Your task to perform on an android device: toggle notification dots Image 0: 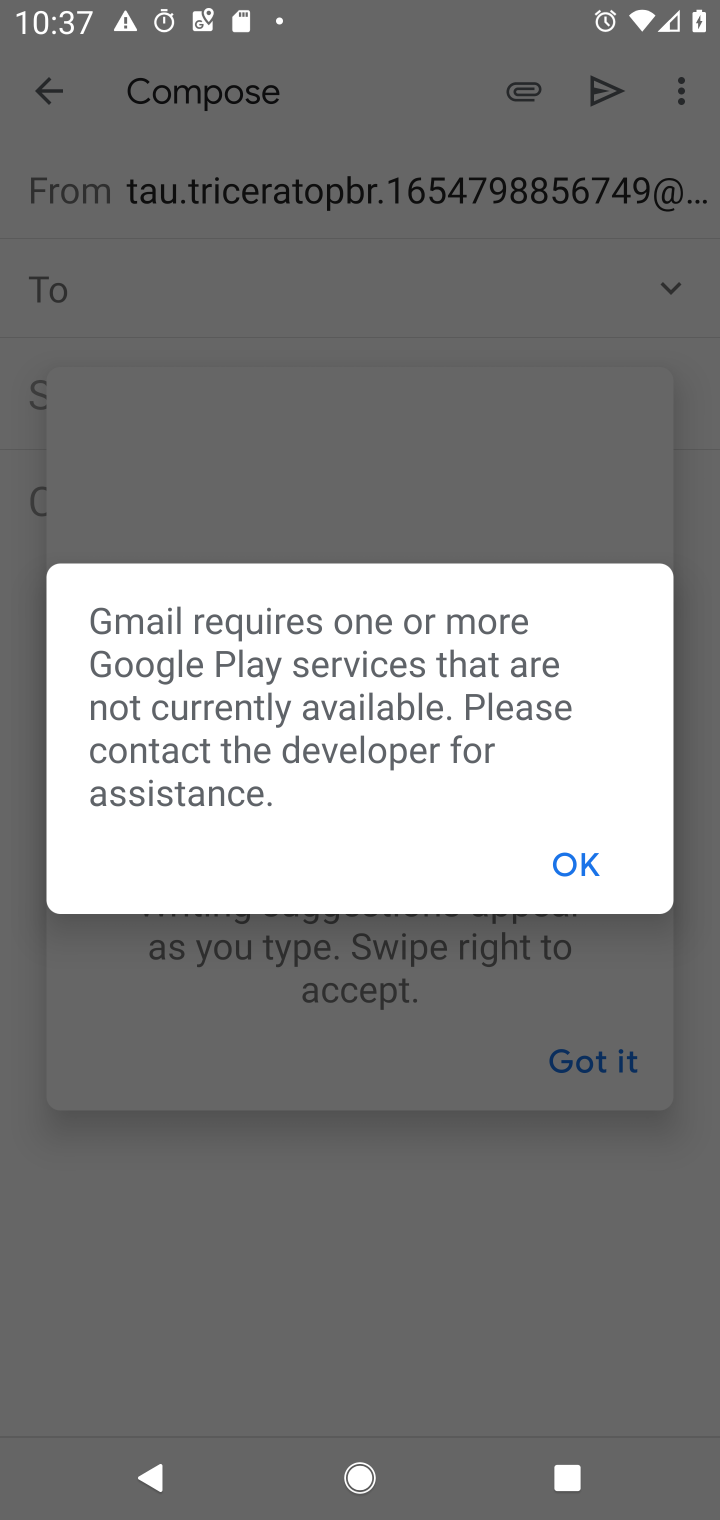
Step 0: press home button
Your task to perform on an android device: toggle notification dots Image 1: 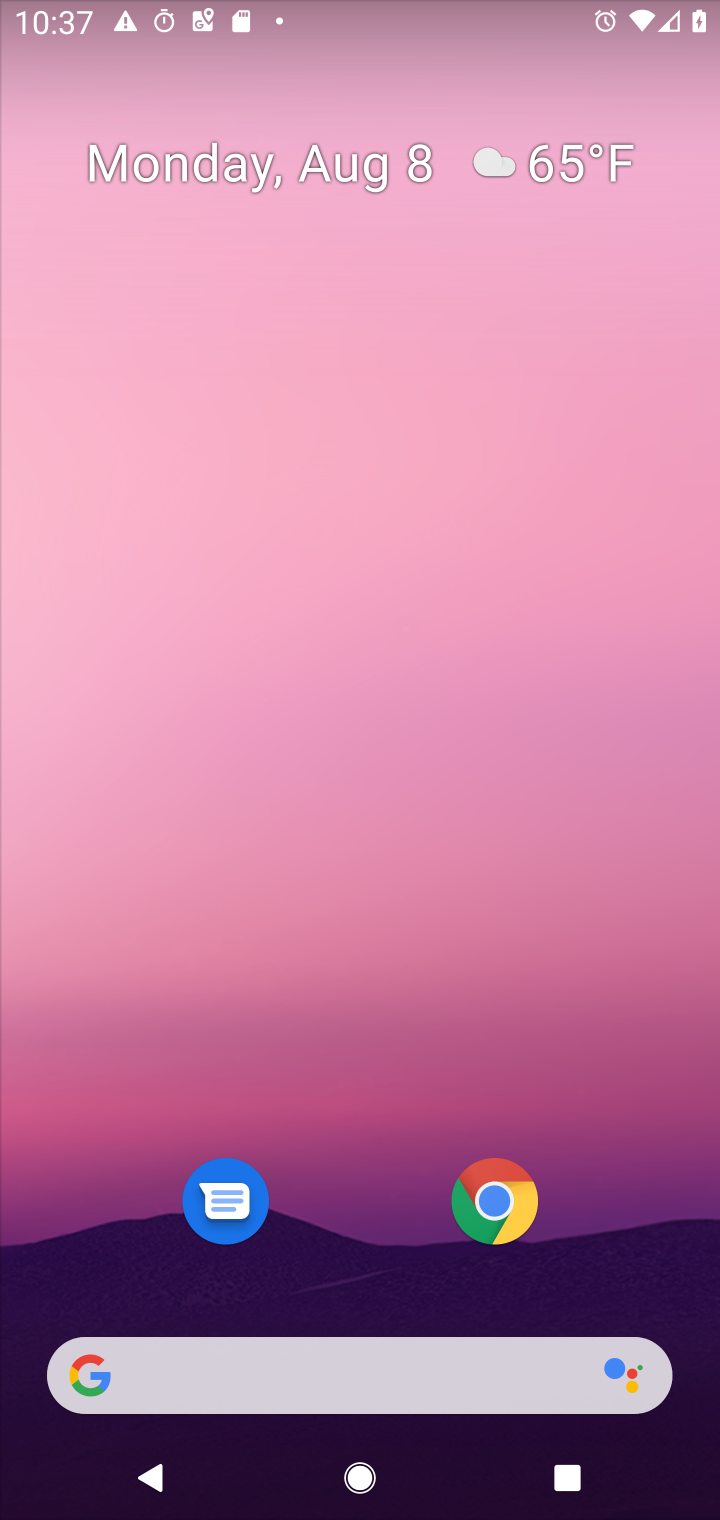
Step 1: drag from (380, 1195) to (456, 280)
Your task to perform on an android device: toggle notification dots Image 2: 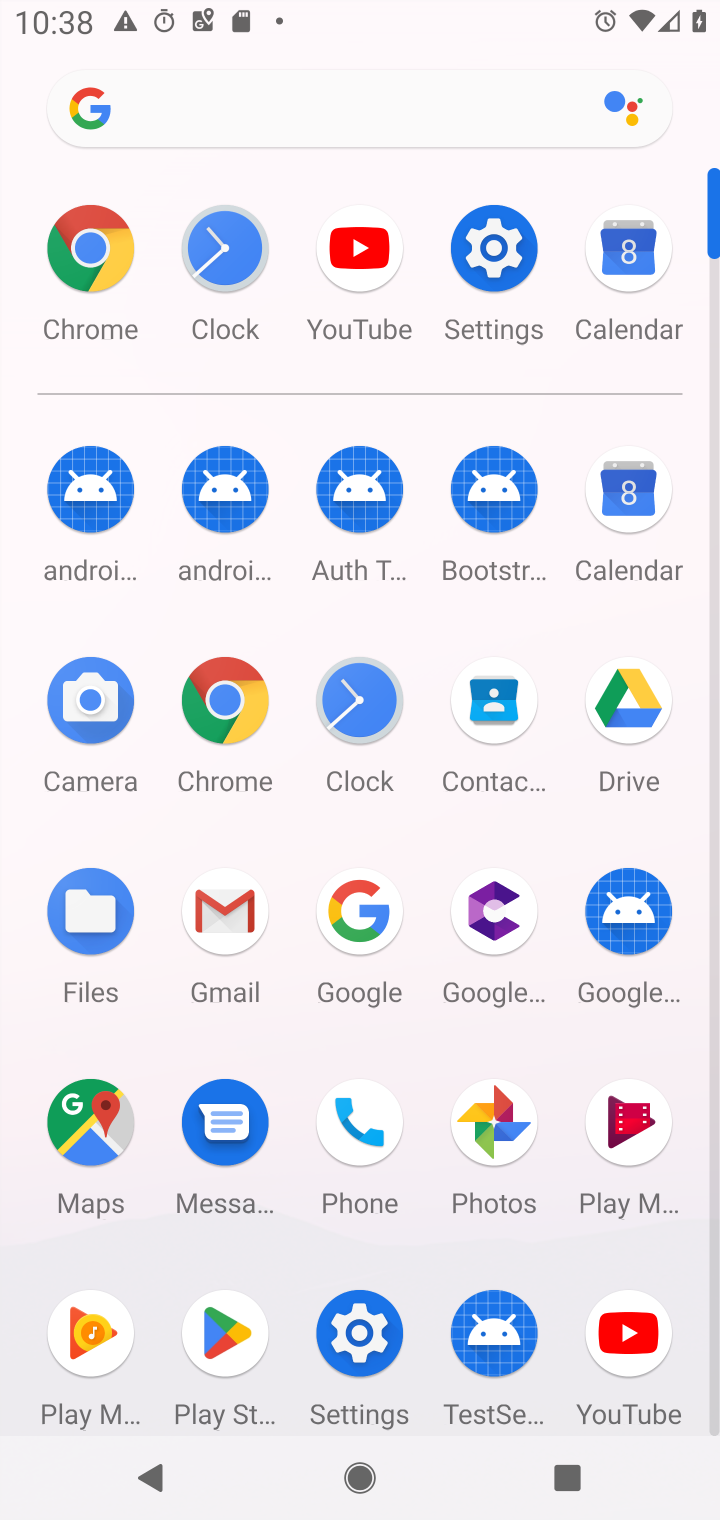
Step 2: click (499, 259)
Your task to perform on an android device: toggle notification dots Image 3: 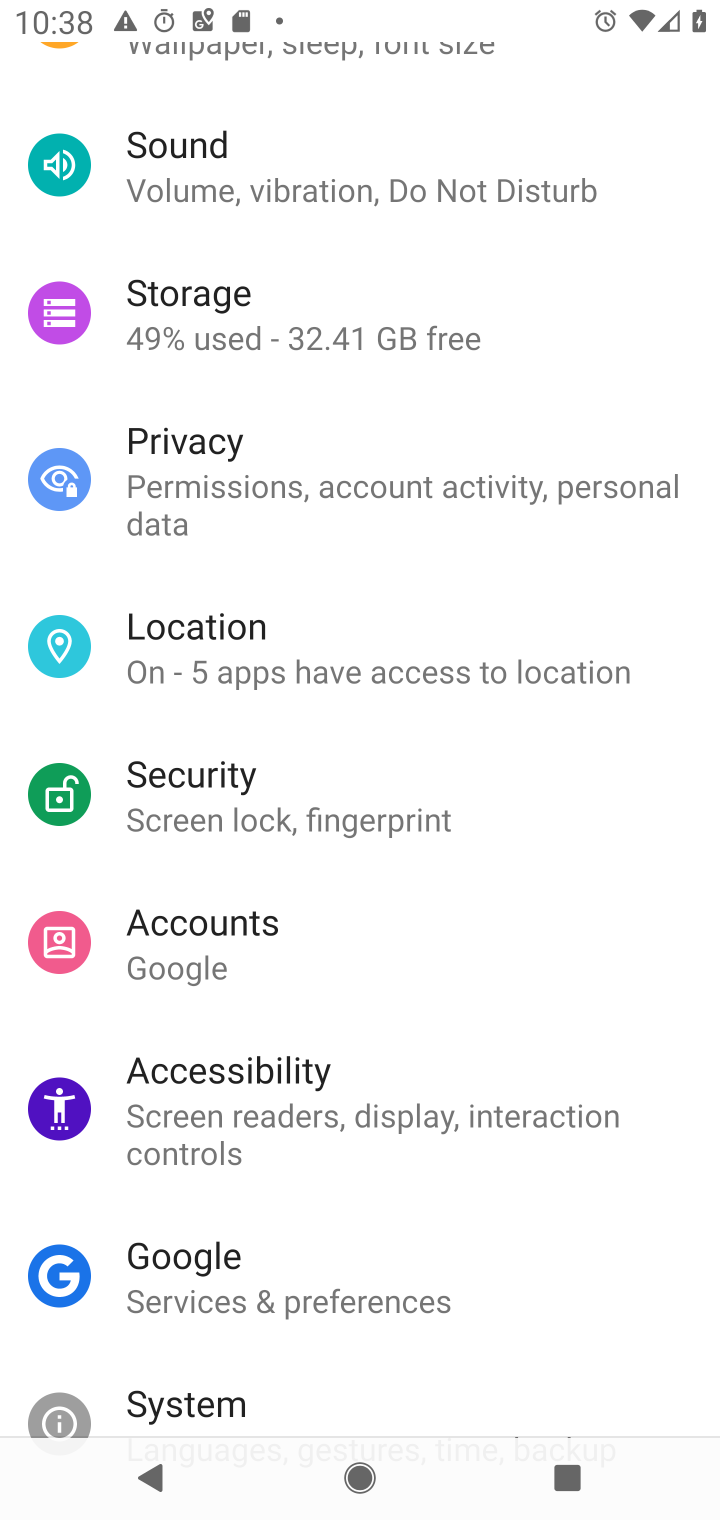
Step 3: drag from (664, 548) to (667, 740)
Your task to perform on an android device: toggle notification dots Image 4: 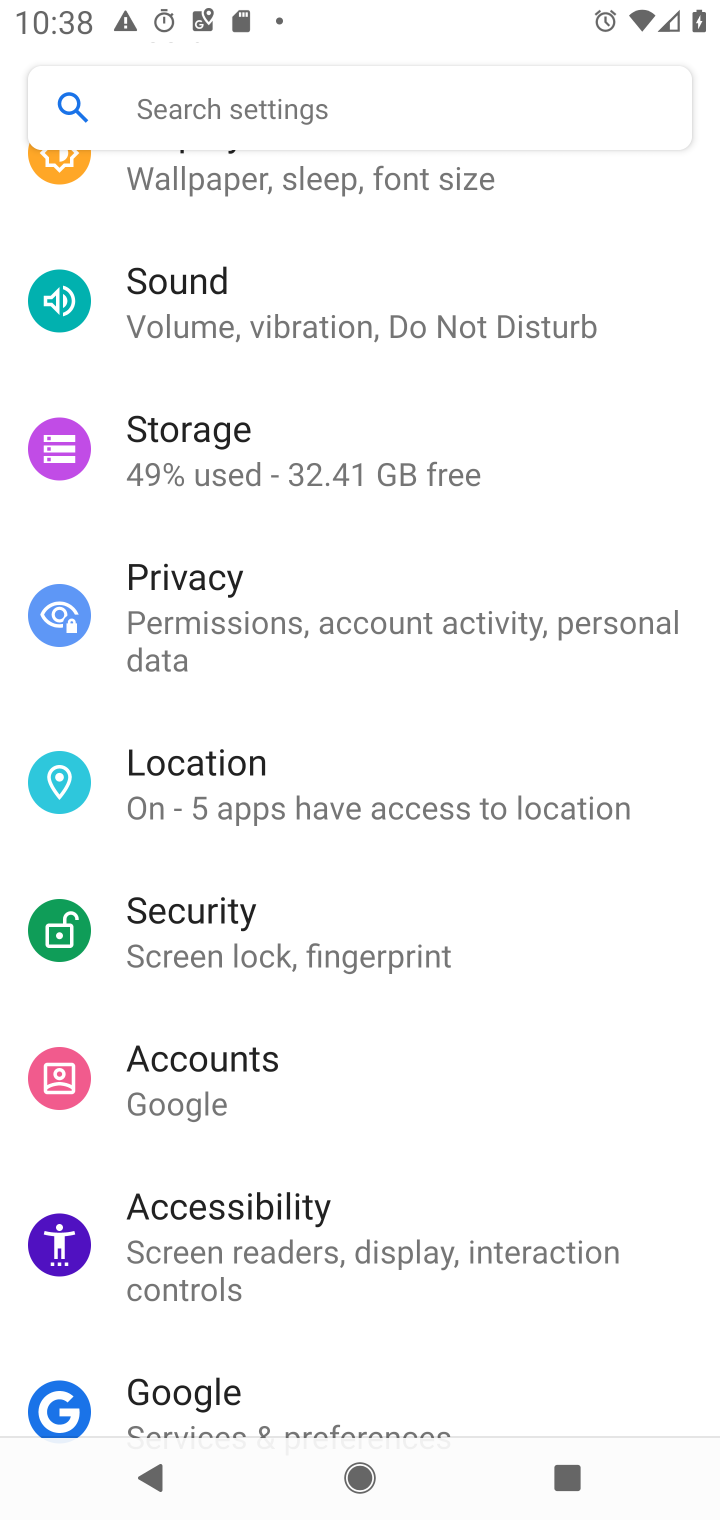
Step 4: drag from (629, 319) to (639, 563)
Your task to perform on an android device: toggle notification dots Image 5: 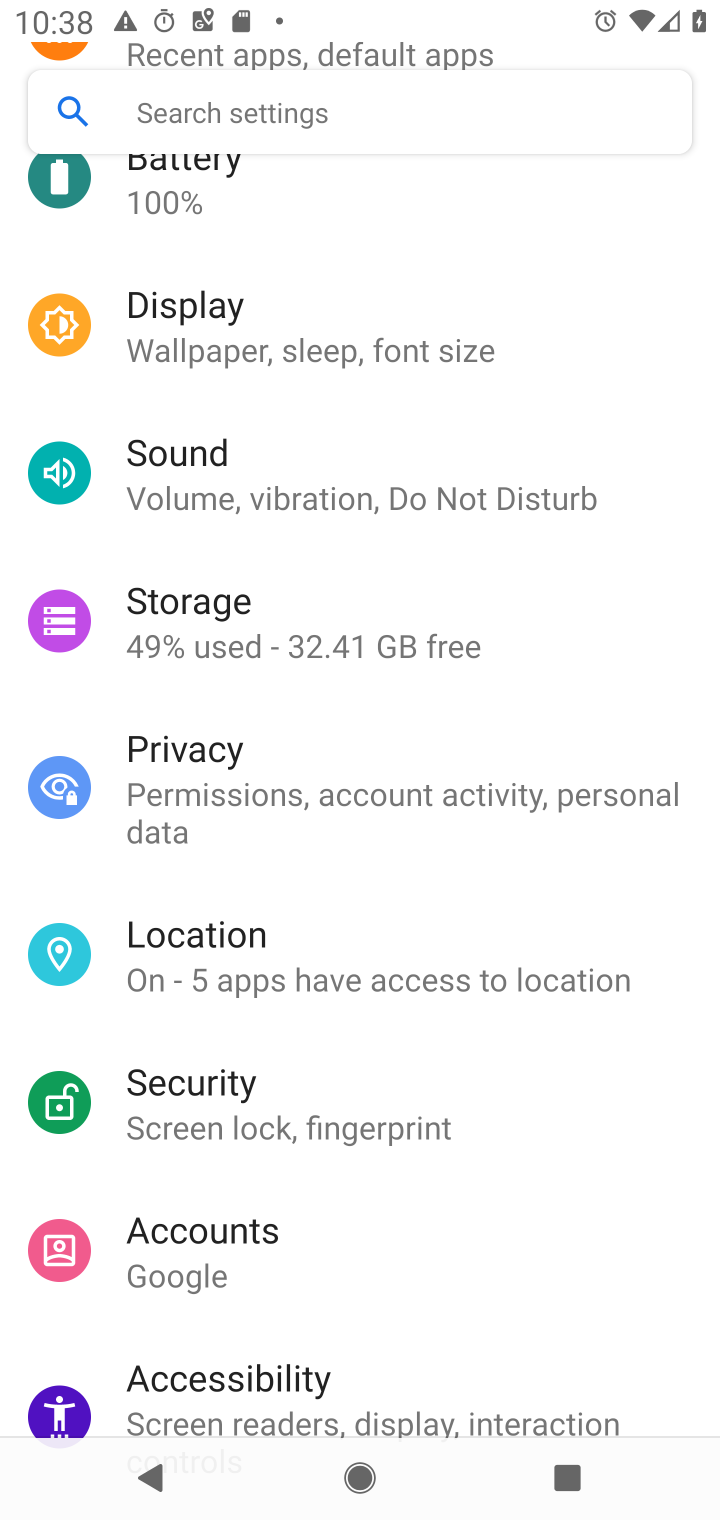
Step 5: drag from (634, 268) to (650, 549)
Your task to perform on an android device: toggle notification dots Image 6: 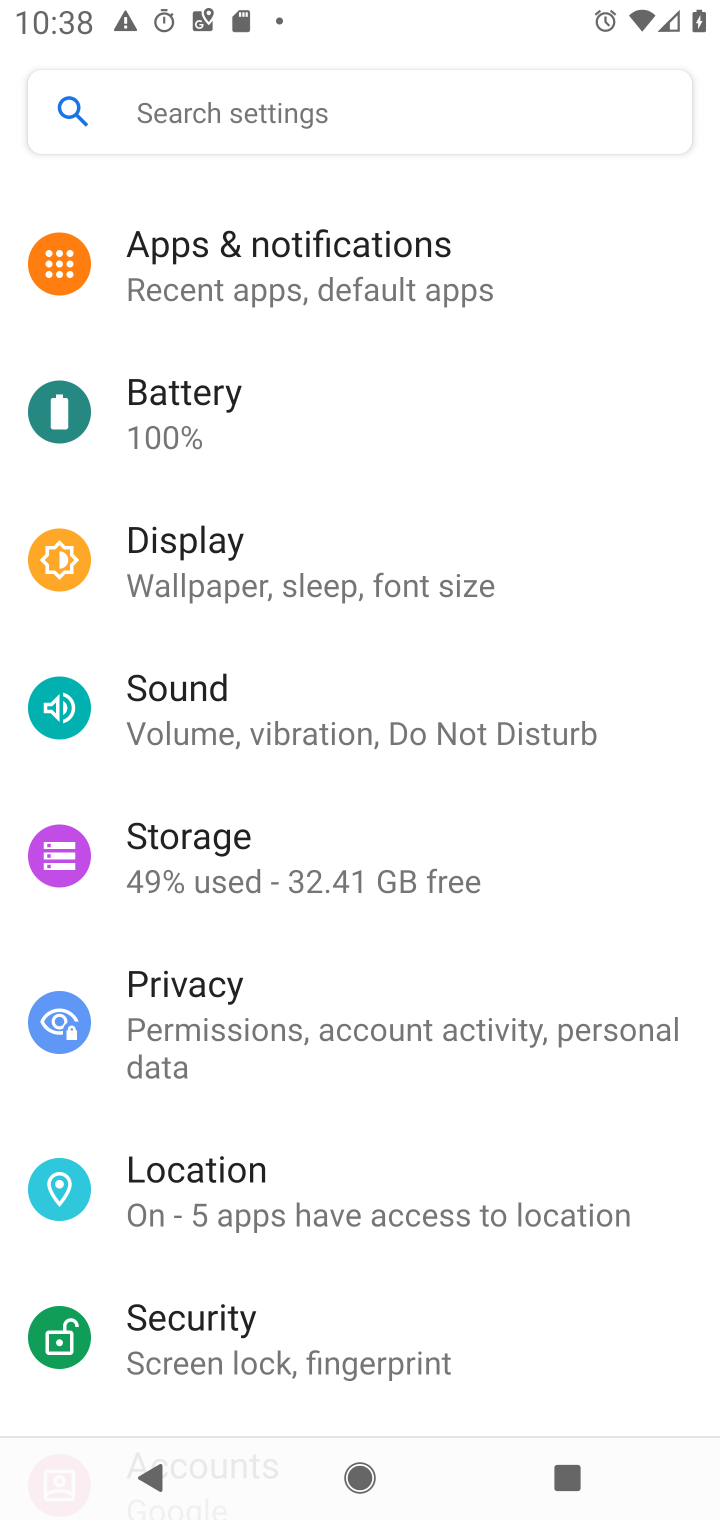
Step 6: drag from (634, 290) to (678, 599)
Your task to perform on an android device: toggle notification dots Image 7: 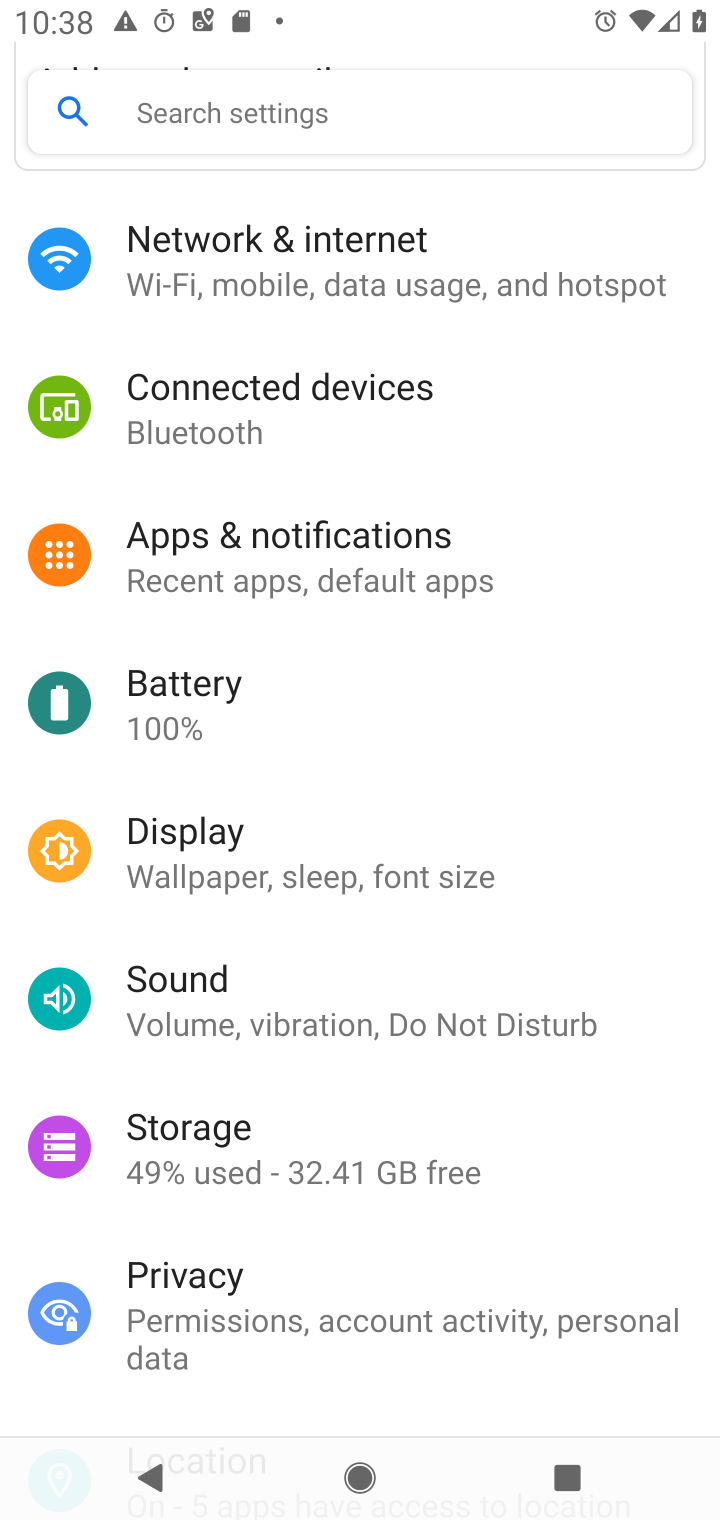
Step 7: drag from (674, 353) to (678, 619)
Your task to perform on an android device: toggle notification dots Image 8: 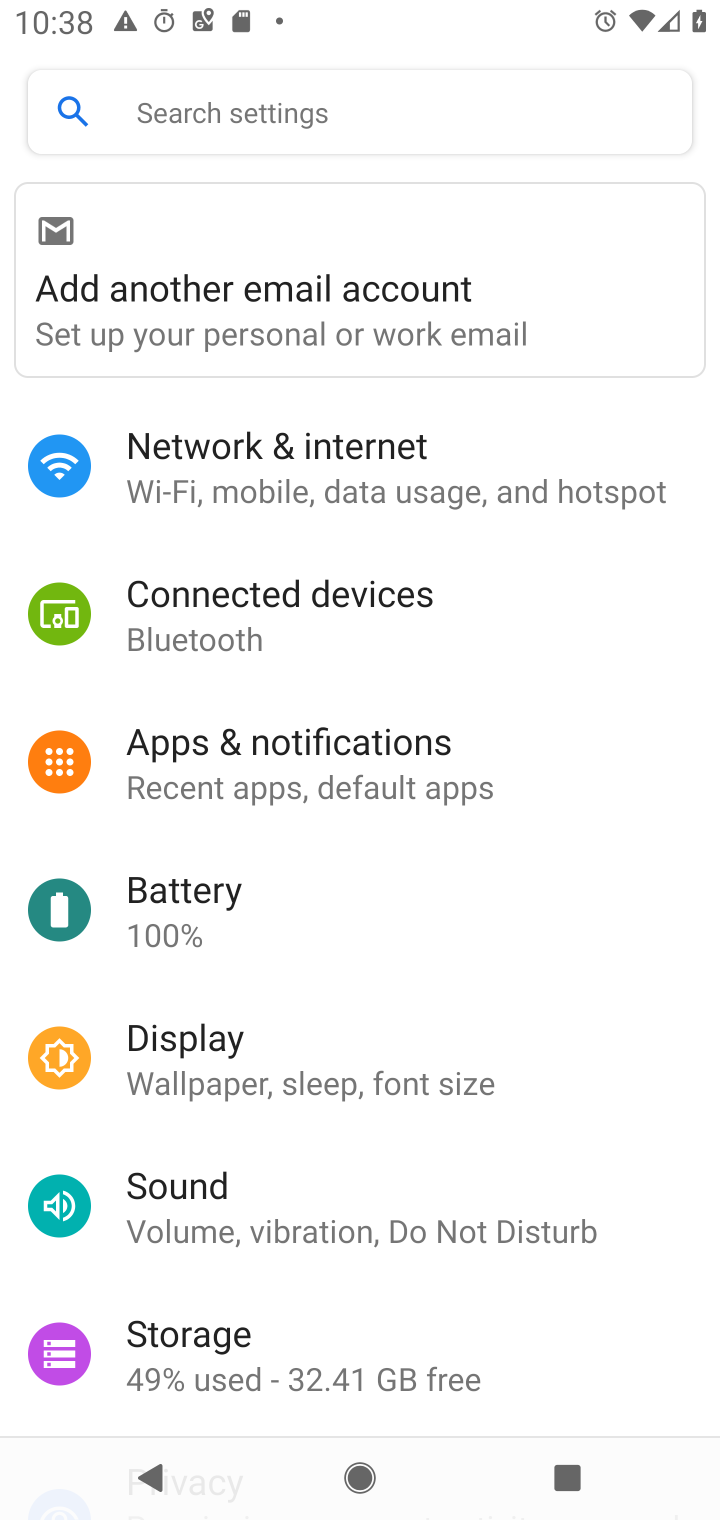
Step 8: click (341, 761)
Your task to perform on an android device: toggle notification dots Image 9: 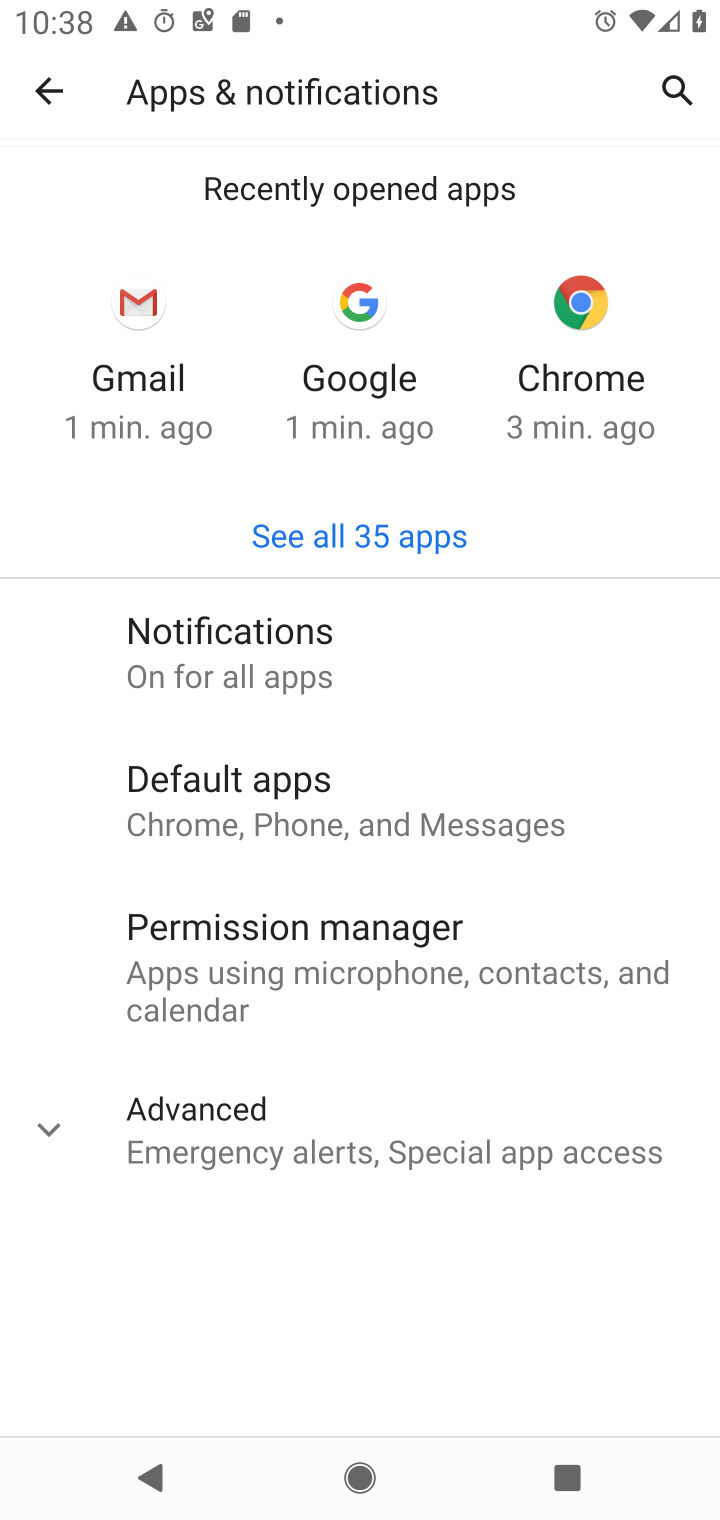
Step 9: click (314, 627)
Your task to perform on an android device: toggle notification dots Image 10: 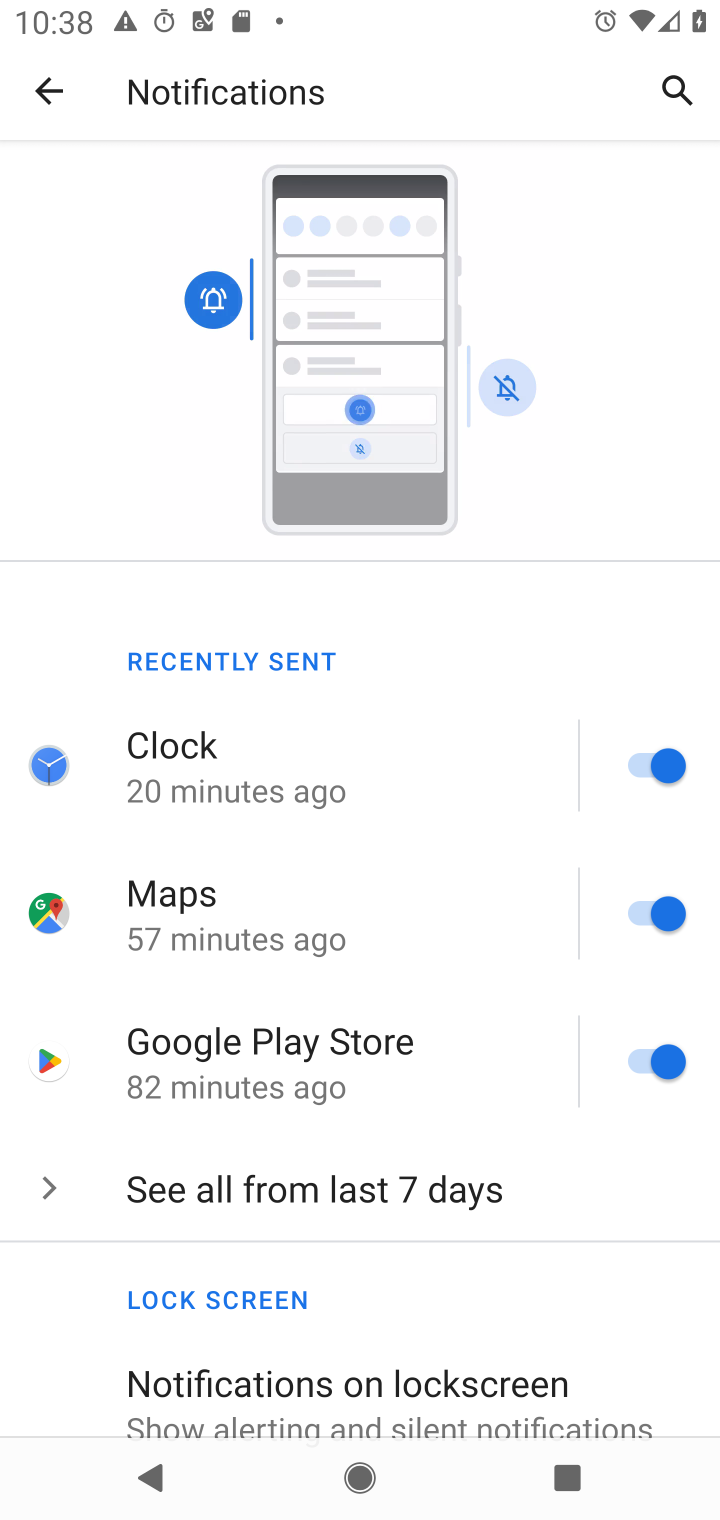
Step 10: drag from (478, 1027) to (497, 696)
Your task to perform on an android device: toggle notification dots Image 11: 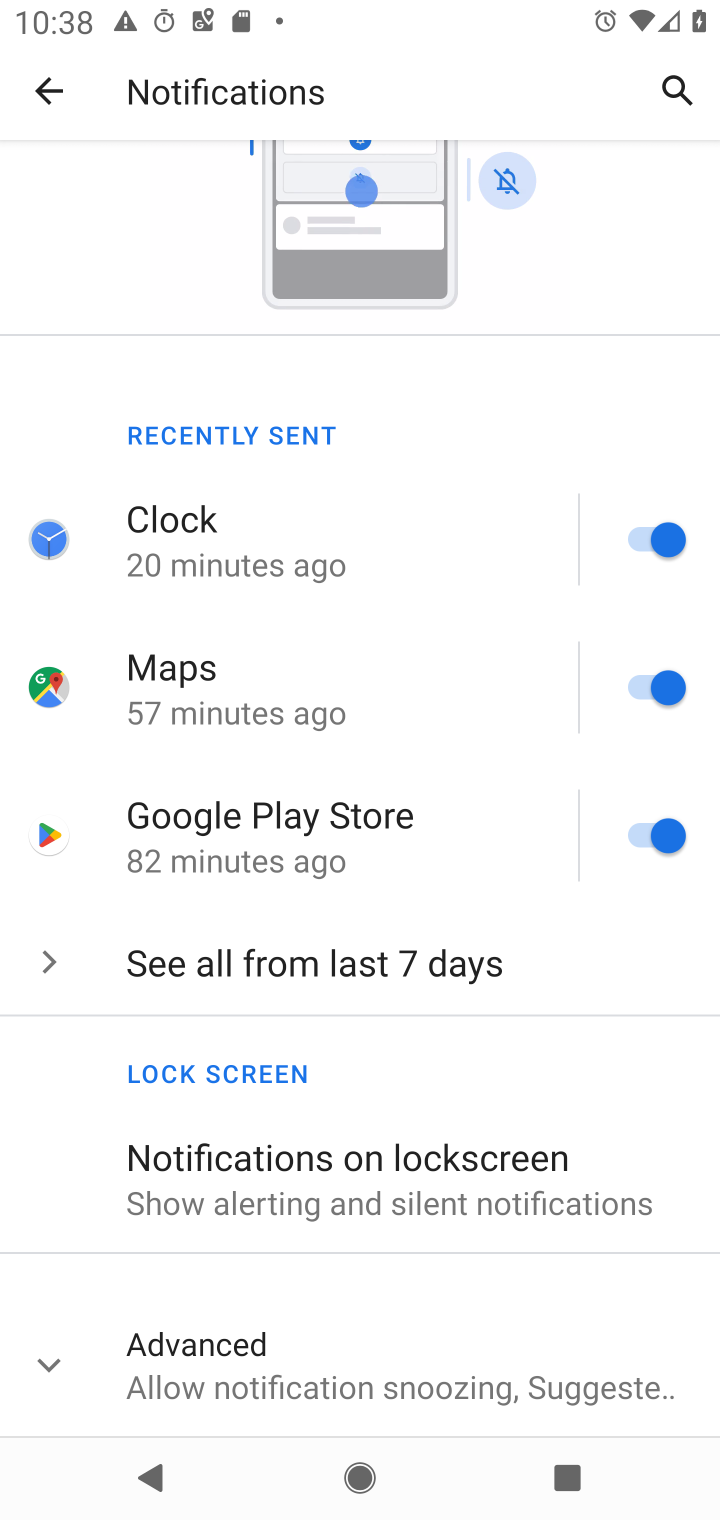
Step 11: drag from (450, 1128) to (445, 732)
Your task to perform on an android device: toggle notification dots Image 12: 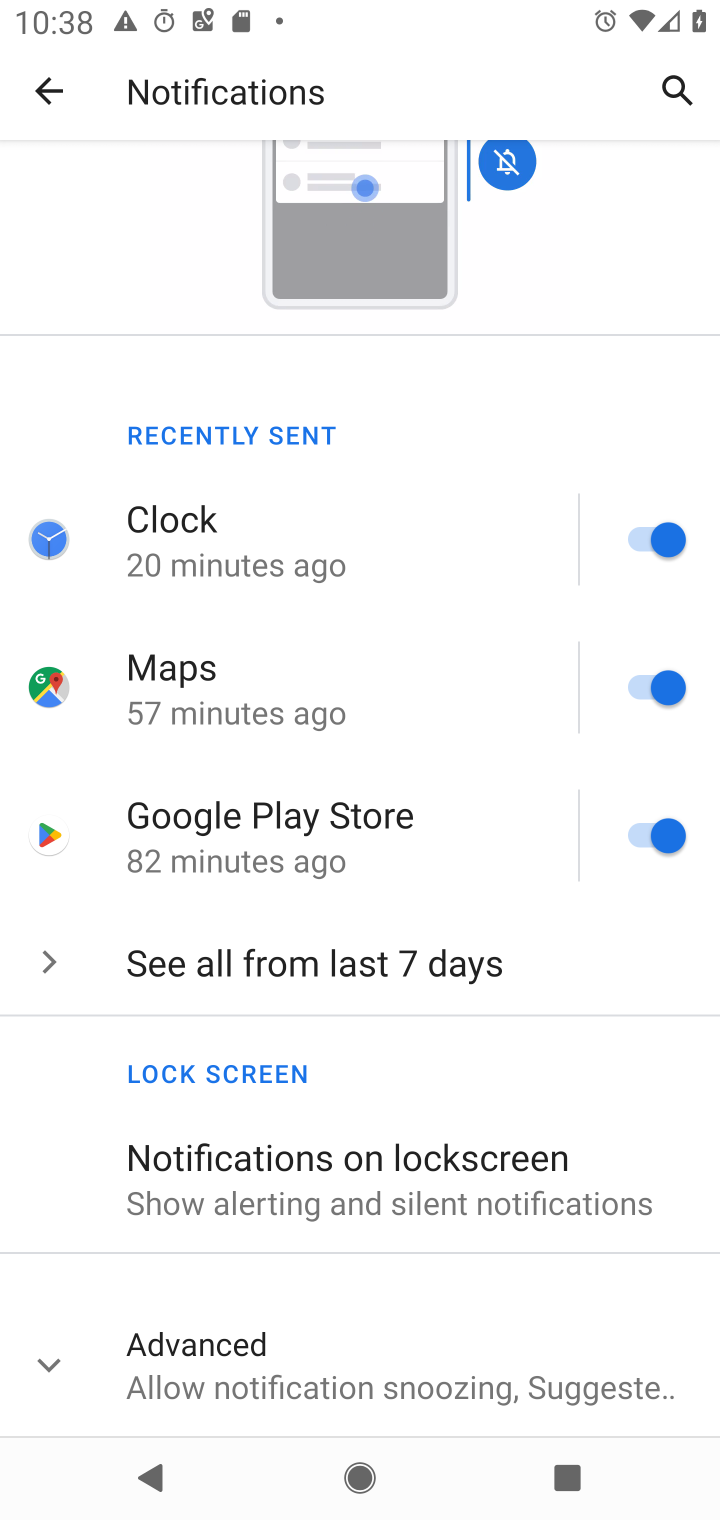
Step 12: click (260, 1348)
Your task to perform on an android device: toggle notification dots Image 13: 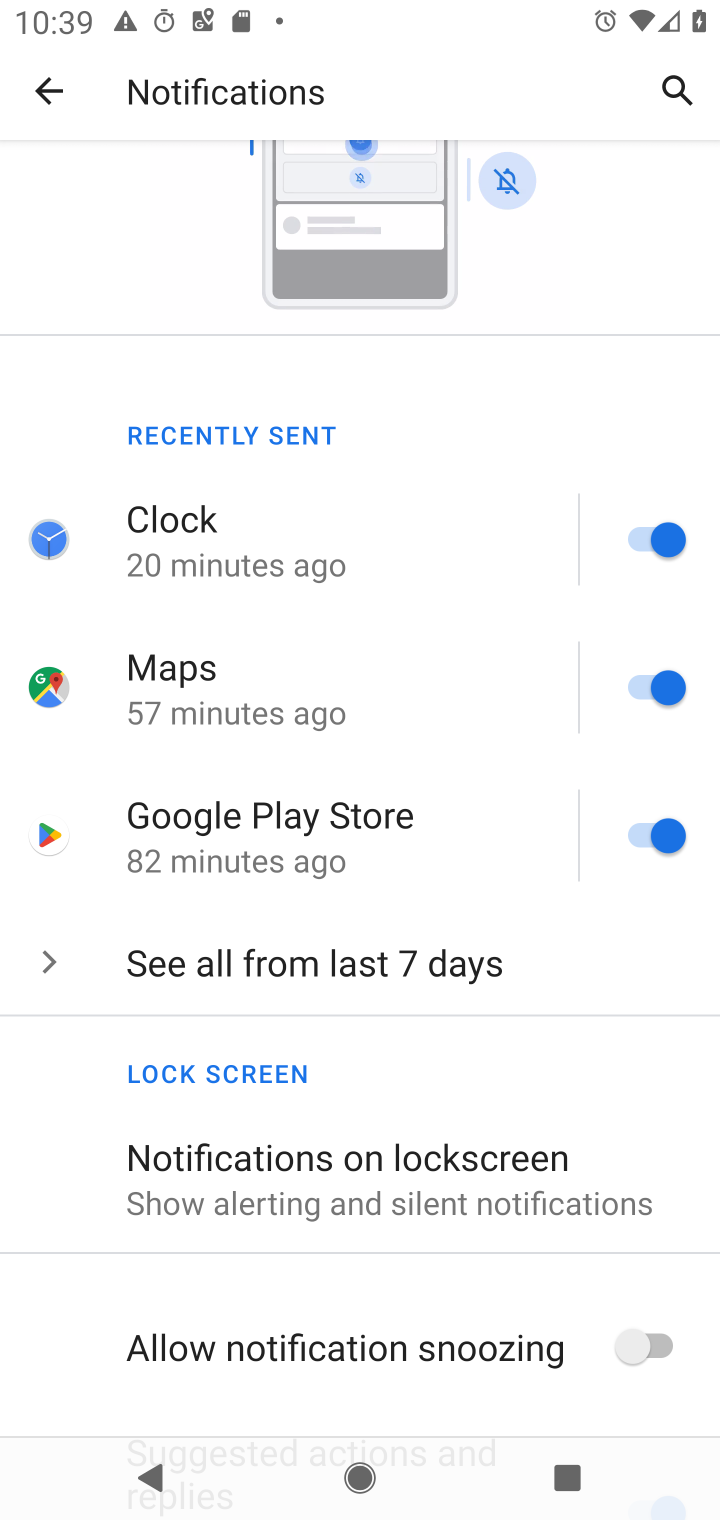
Step 13: task complete